Your task to perform on an android device: change the clock display to analog Image 0: 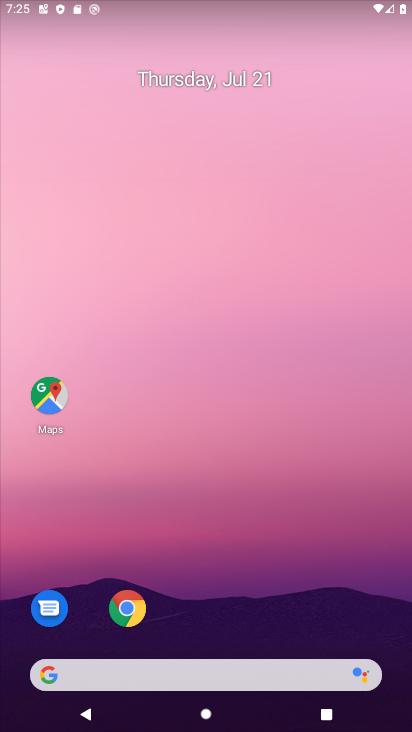
Step 0: drag from (180, 673) to (242, 237)
Your task to perform on an android device: change the clock display to analog Image 1: 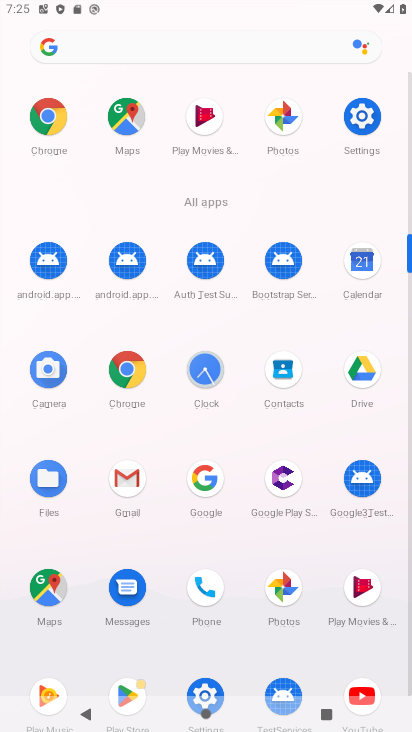
Step 1: click (204, 369)
Your task to perform on an android device: change the clock display to analog Image 2: 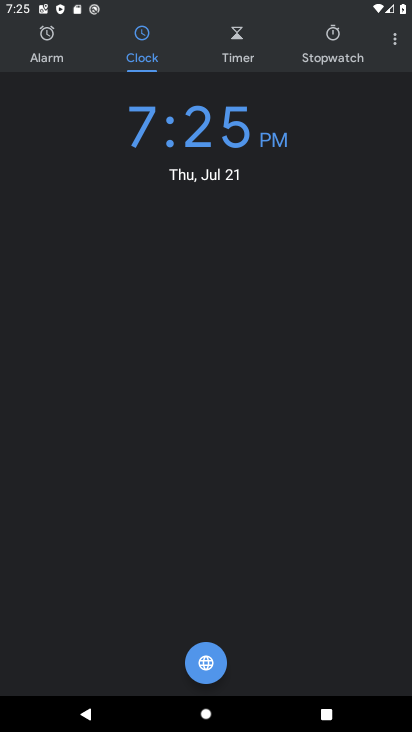
Step 2: click (396, 40)
Your task to perform on an android device: change the clock display to analog Image 3: 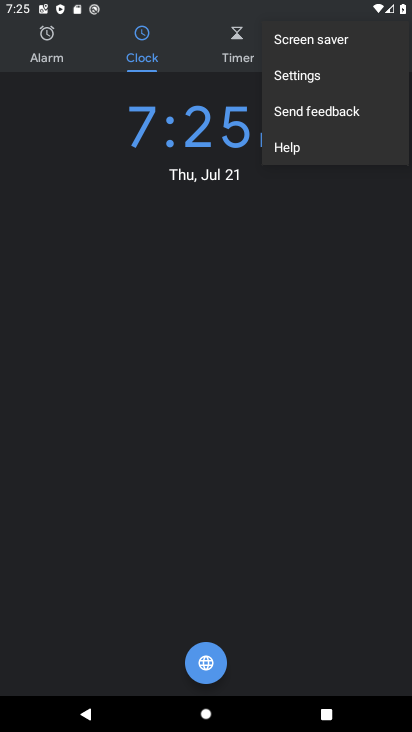
Step 3: click (317, 78)
Your task to perform on an android device: change the clock display to analog Image 4: 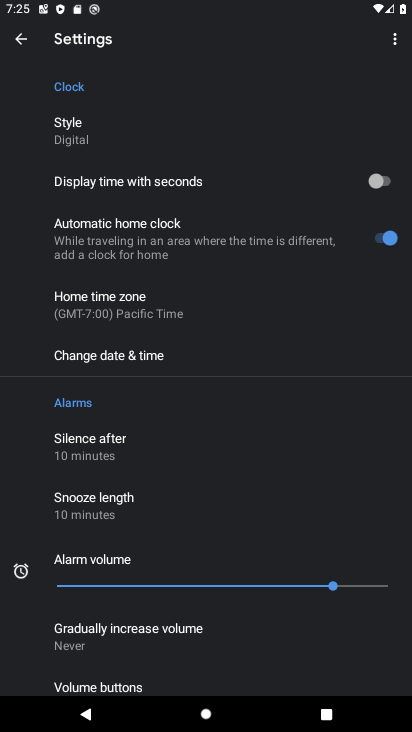
Step 4: click (82, 138)
Your task to perform on an android device: change the clock display to analog Image 5: 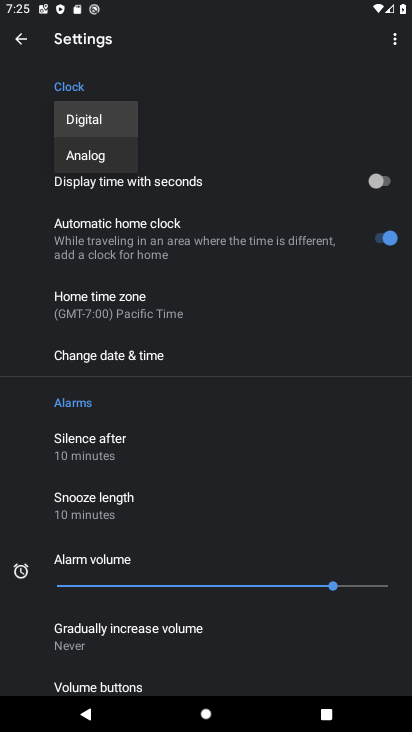
Step 5: click (90, 155)
Your task to perform on an android device: change the clock display to analog Image 6: 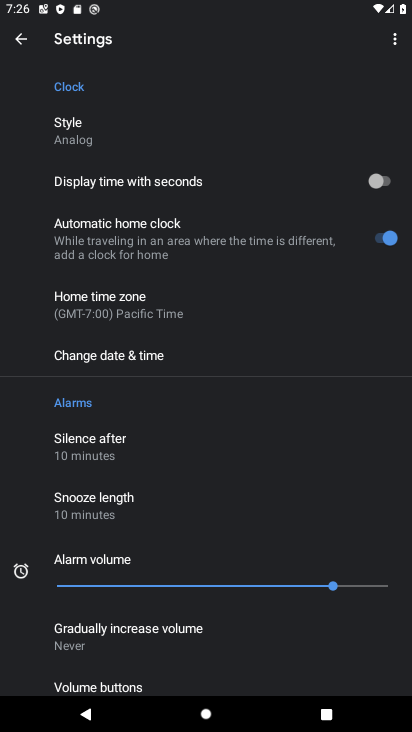
Step 6: task complete